Your task to perform on an android device: change the upload size in google photos Image 0: 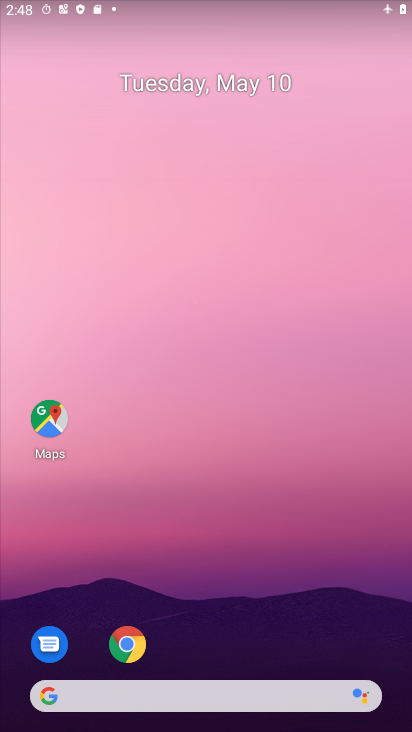
Step 0: drag from (255, 596) to (278, 124)
Your task to perform on an android device: change the upload size in google photos Image 1: 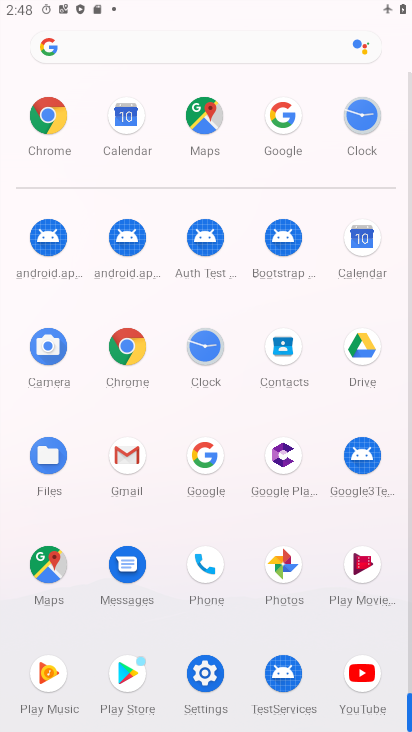
Step 1: click (264, 579)
Your task to perform on an android device: change the upload size in google photos Image 2: 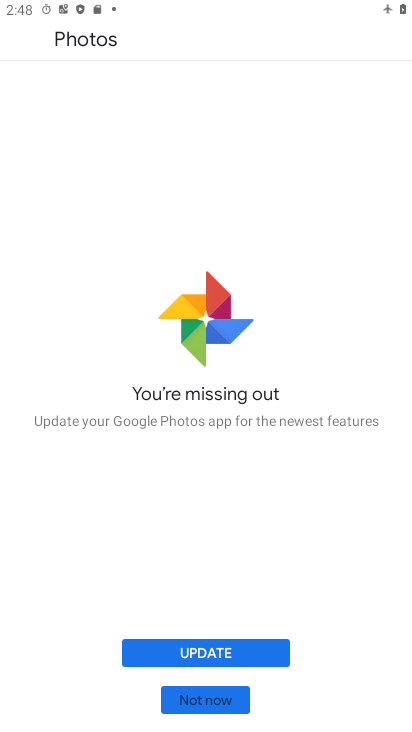
Step 2: click (206, 692)
Your task to perform on an android device: change the upload size in google photos Image 3: 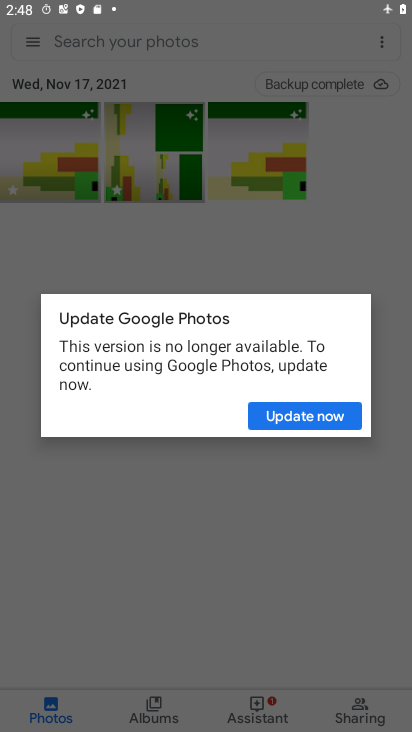
Step 3: task complete